Your task to perform on an android device: Is it going to rain this weekend? Image 0: 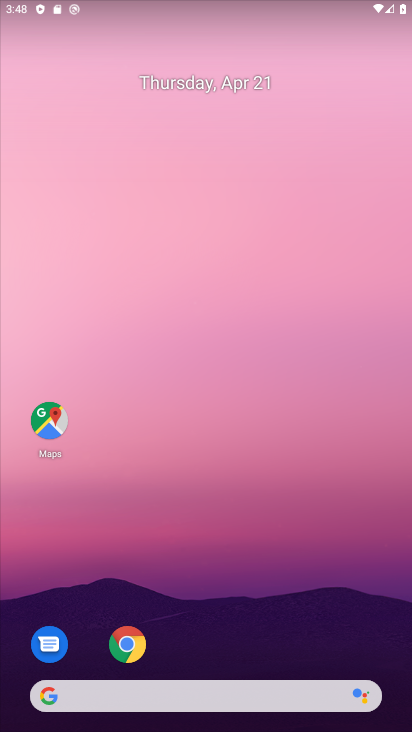
Step 0: drag from (176, 668) to (290, 114)
Your task to perform on an android device: Is it going to rain this weekend? Image 1: 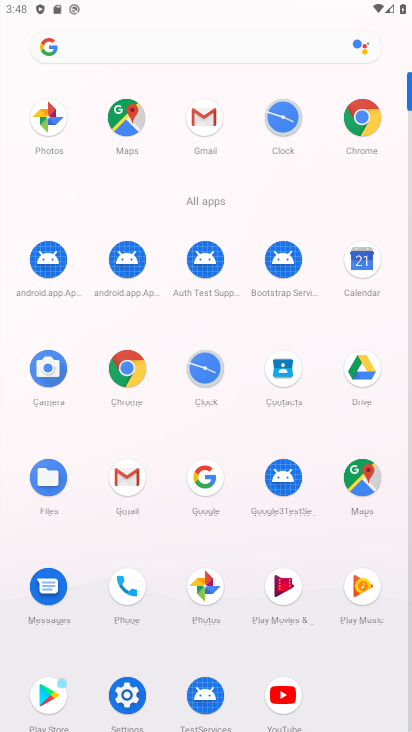
Step 1: press home button
Your task to perform on an android device: Is it going to rain this weekend? Image 2: 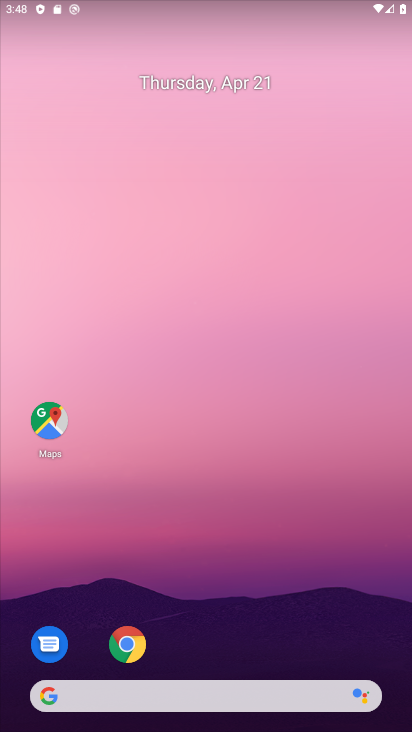
Step 2: drag from (141, 689) to (305, 91)
Your task to perform on an android device: Is it going to rain this weekend? Image 3: 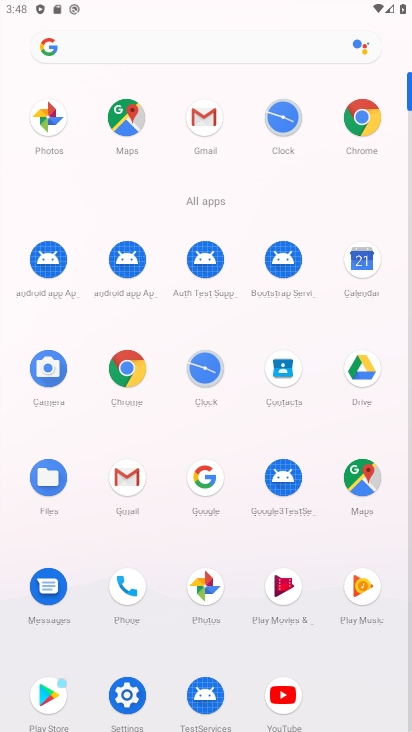
Step 3: click (203, 482)
Your task to perform on an android device: Is it going to rain this weekend? Image 4: 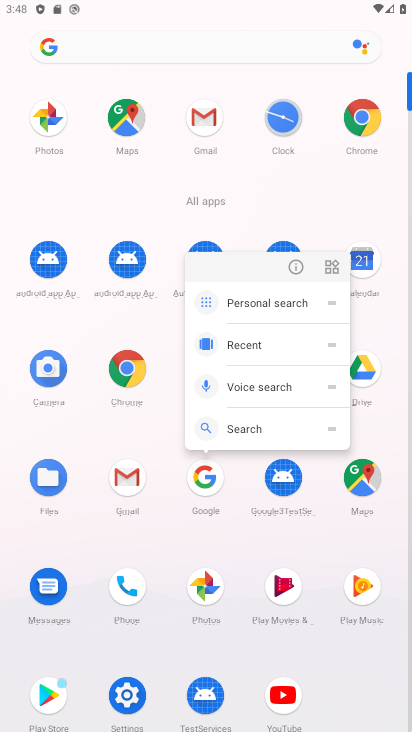
Step 4: click (205, 484)
Your task to perform on an android device: Is it going to rain this weekend? Image 5: 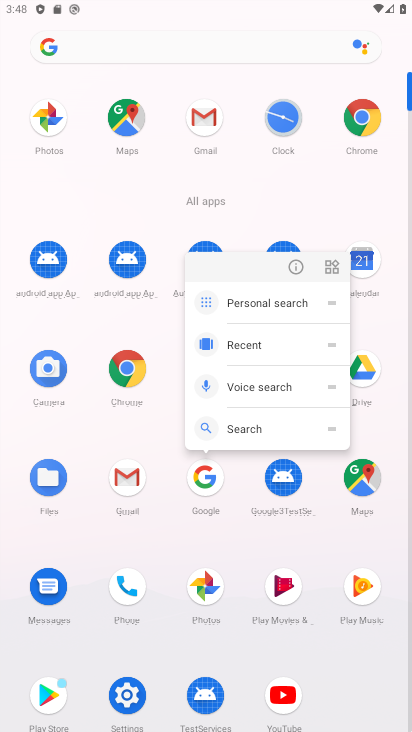
Step 5: click (202, 488)
Your task to perform on an android device: Is it going to rain this weekend? Image 6: 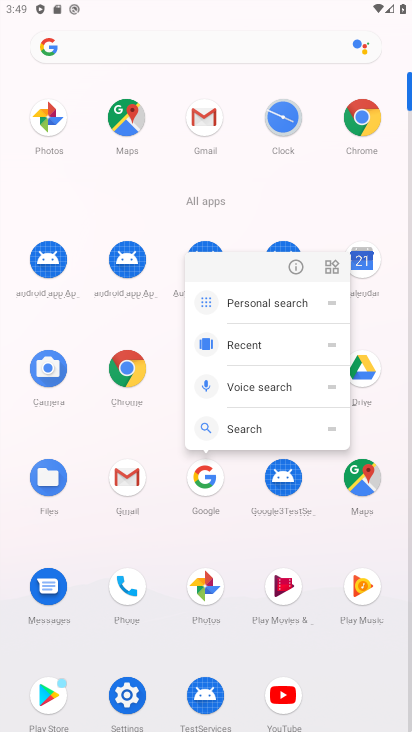
Step 6: click (201, 484)
Your task to perform on an android device: Is it going to rain this weekend? Image 7: 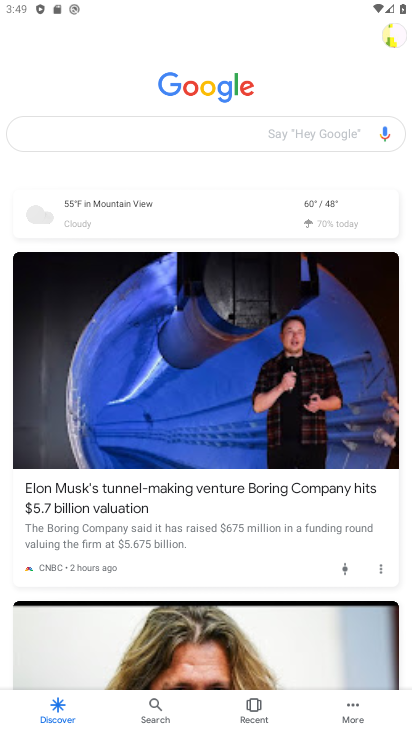
Step 7: click (318, 204)
Your task to perform on an android device: Is it going to rain this weekend? Image 8: 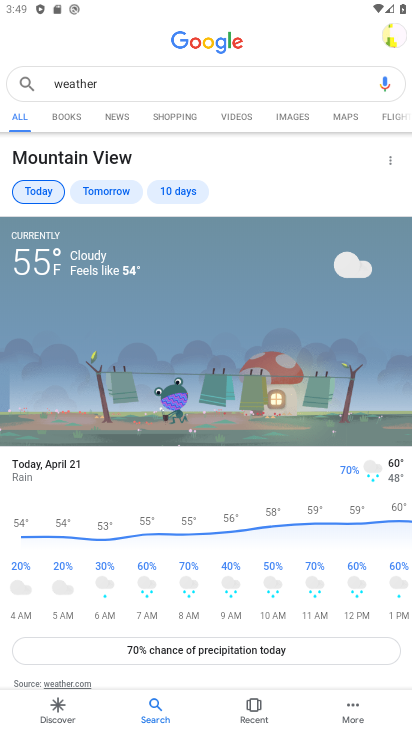
Step 8: task complete